Your task to perform on an android device: What's the weather going to be tomorrow? Image 0: 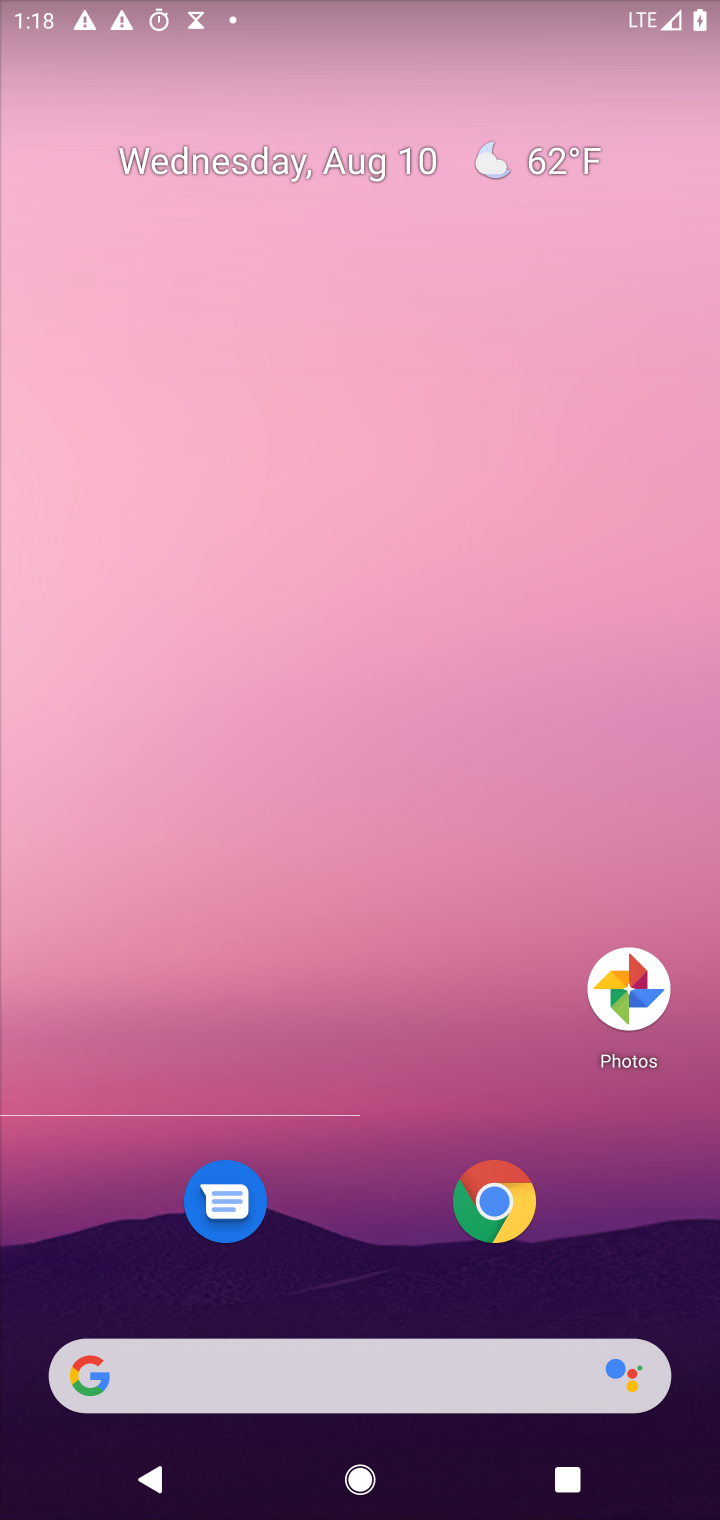
Step 0: press home button
Your task to perform on an android device: What's the weather going to be tomorrow? Image 1: 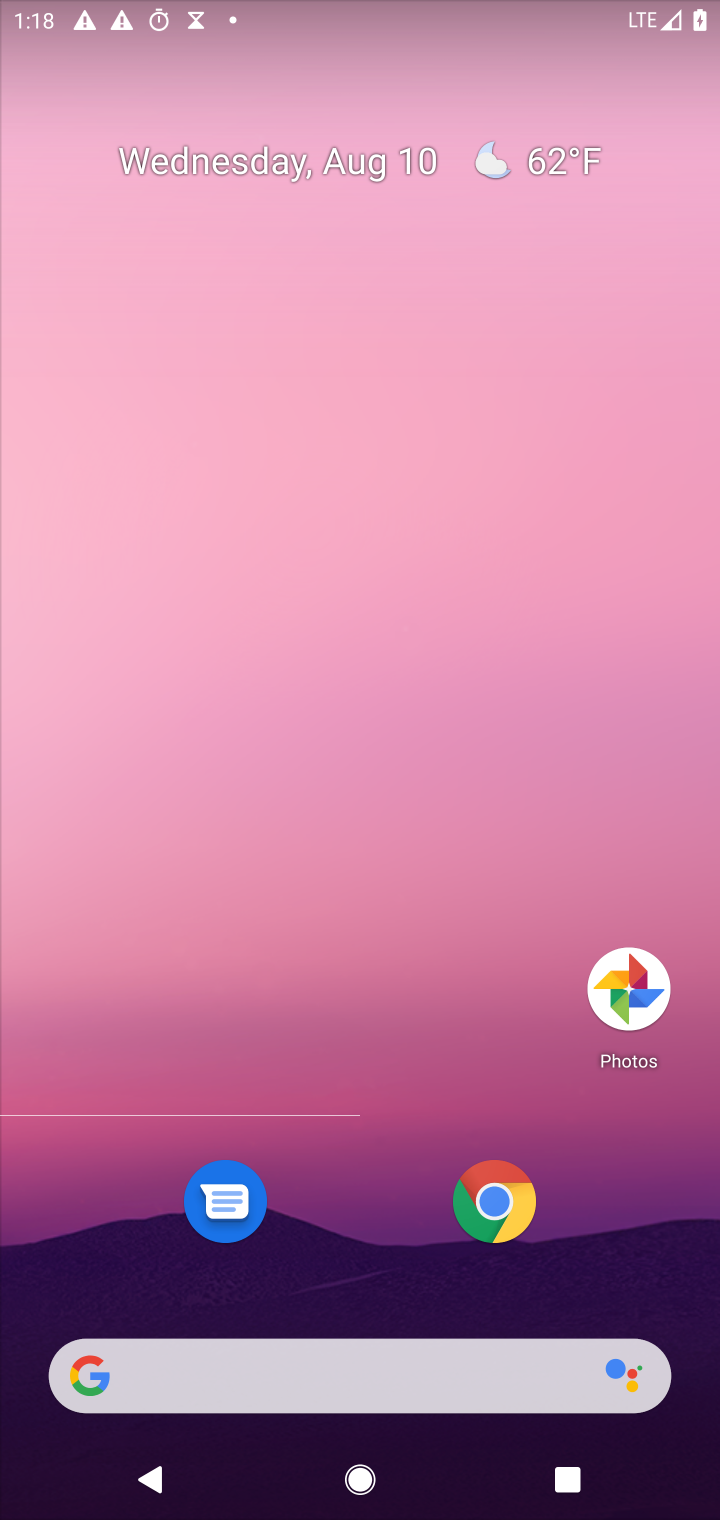
Step 1: drag from (340, 614) to (357, 93)
Your task to perform on an android device: What's the weather going to be tomorrow? Image 2: 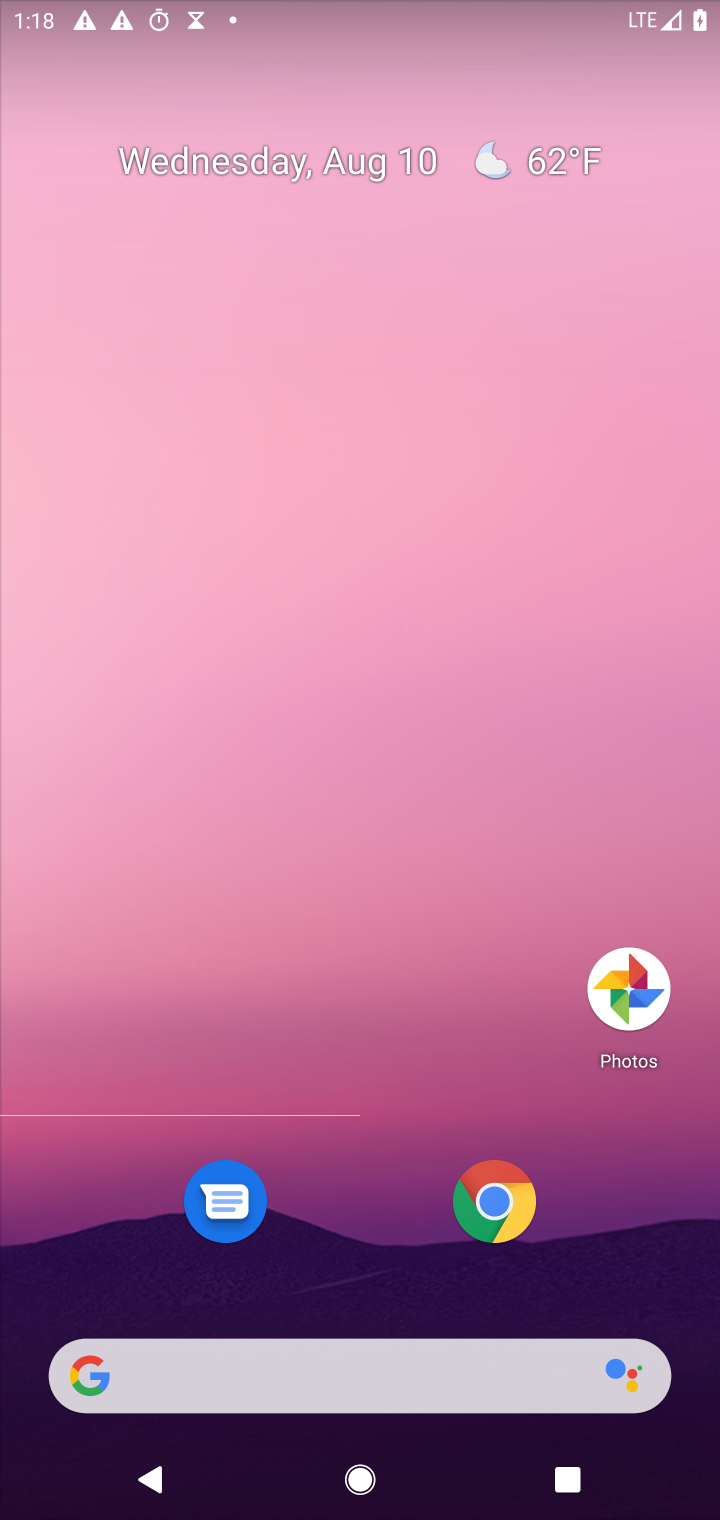
Step 2: drag from (357, 1060) to (351, 59)
Your task to perform on an android device: What's the weather going to be tomorrow? Image 3: 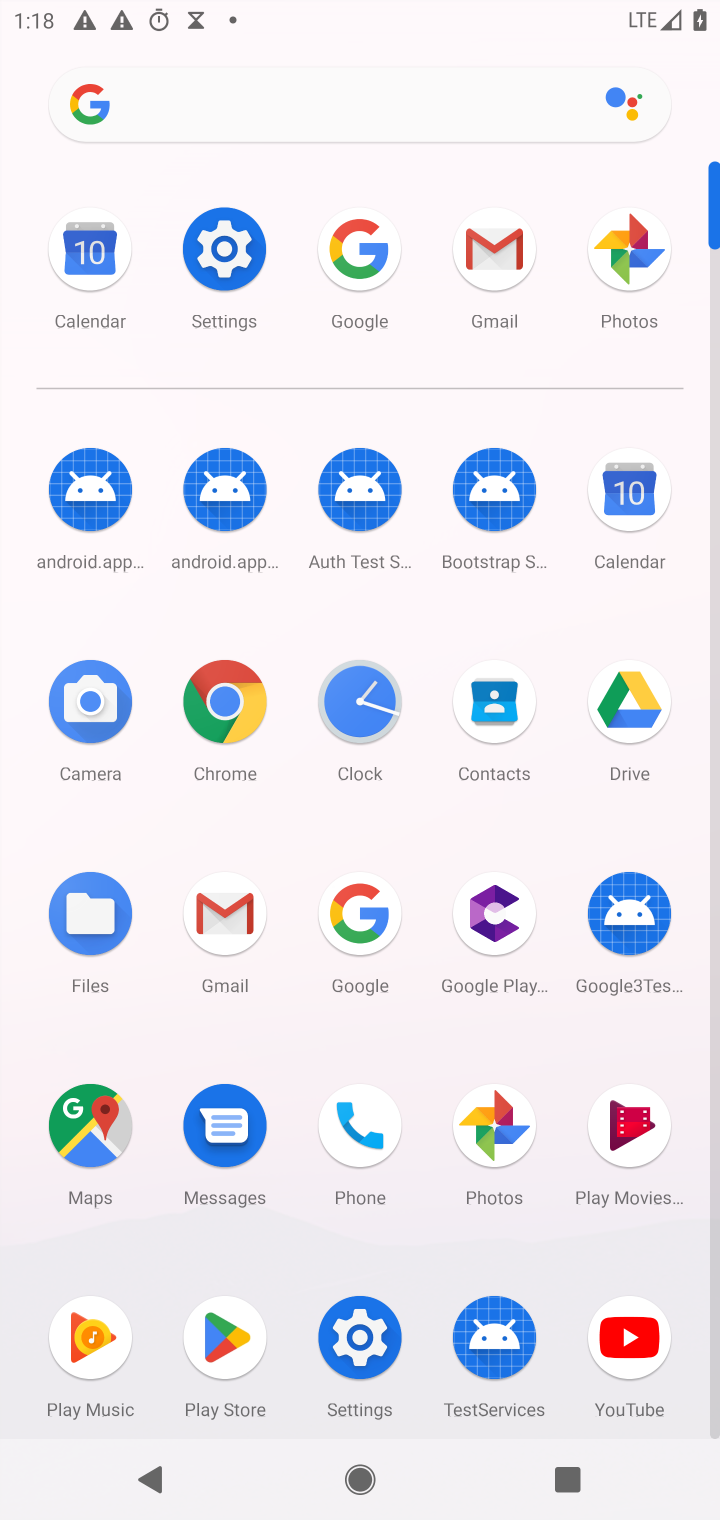
Step 3: click (350, 923)
Your task to perform on an android device: What's the weather going to be tomorrow? Image 4: 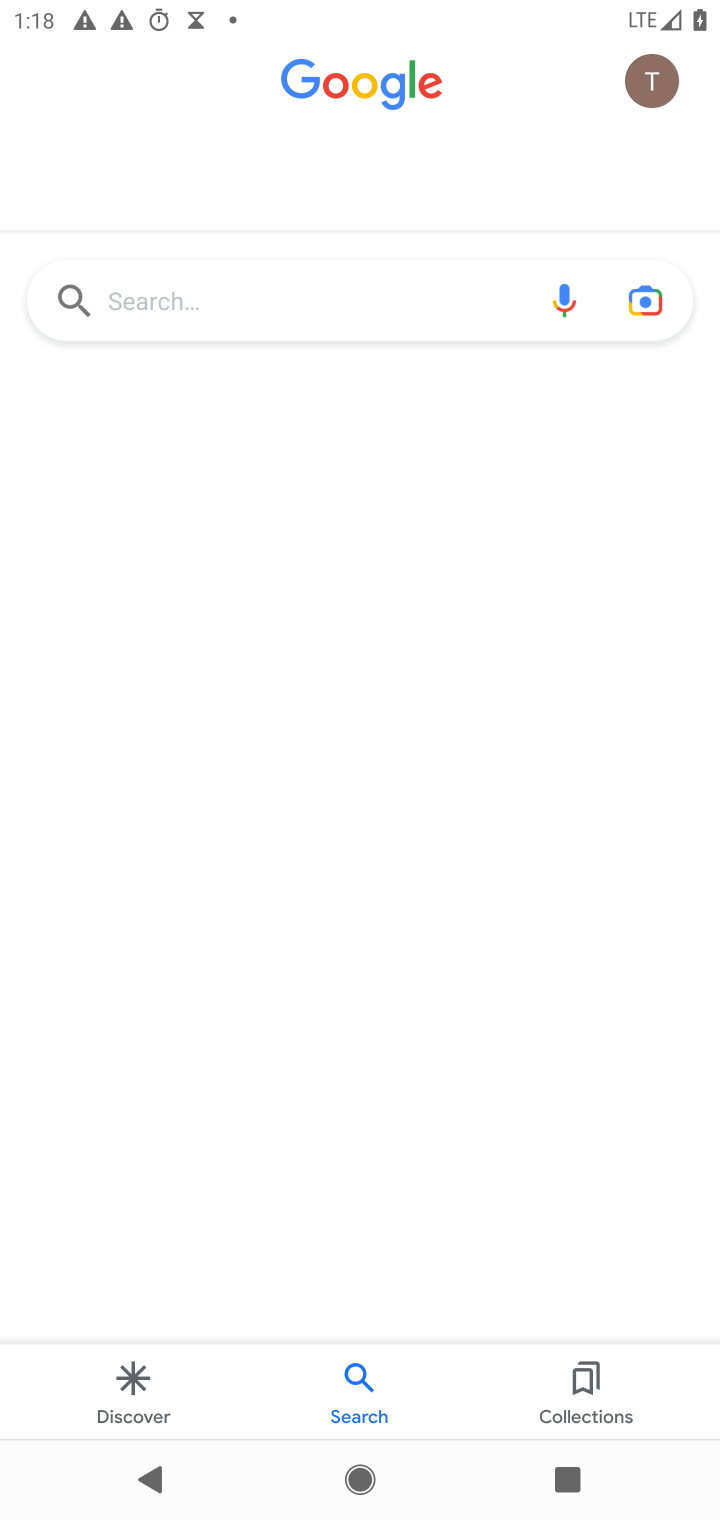
Step 4: type "What's the weather going to be tomorrow?"
Your task to perform on an android device: What's the weather going to be tomorrow? Image 5: 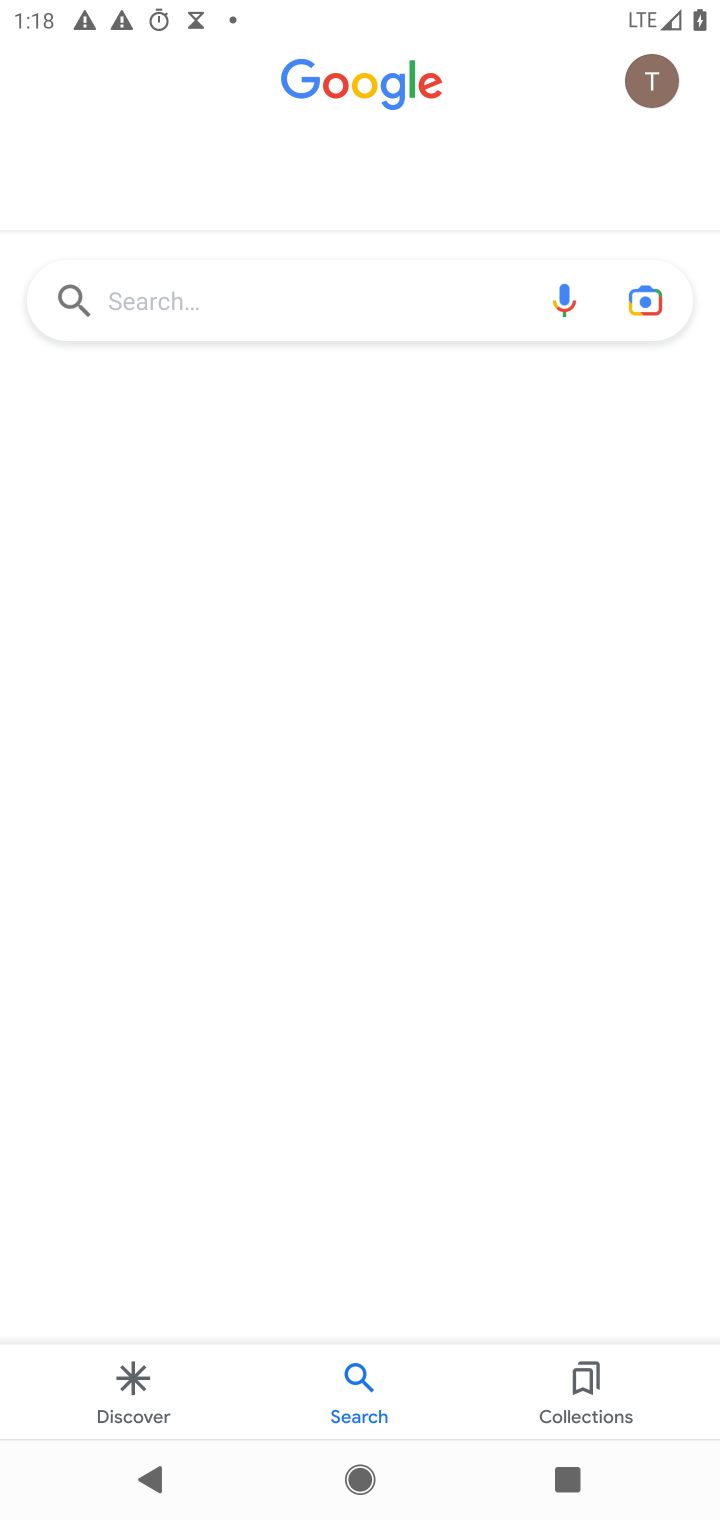
Step 5: click (220, 329)
Your task to perform on an android device: What's the weather going to be tomorrow? Image 6: 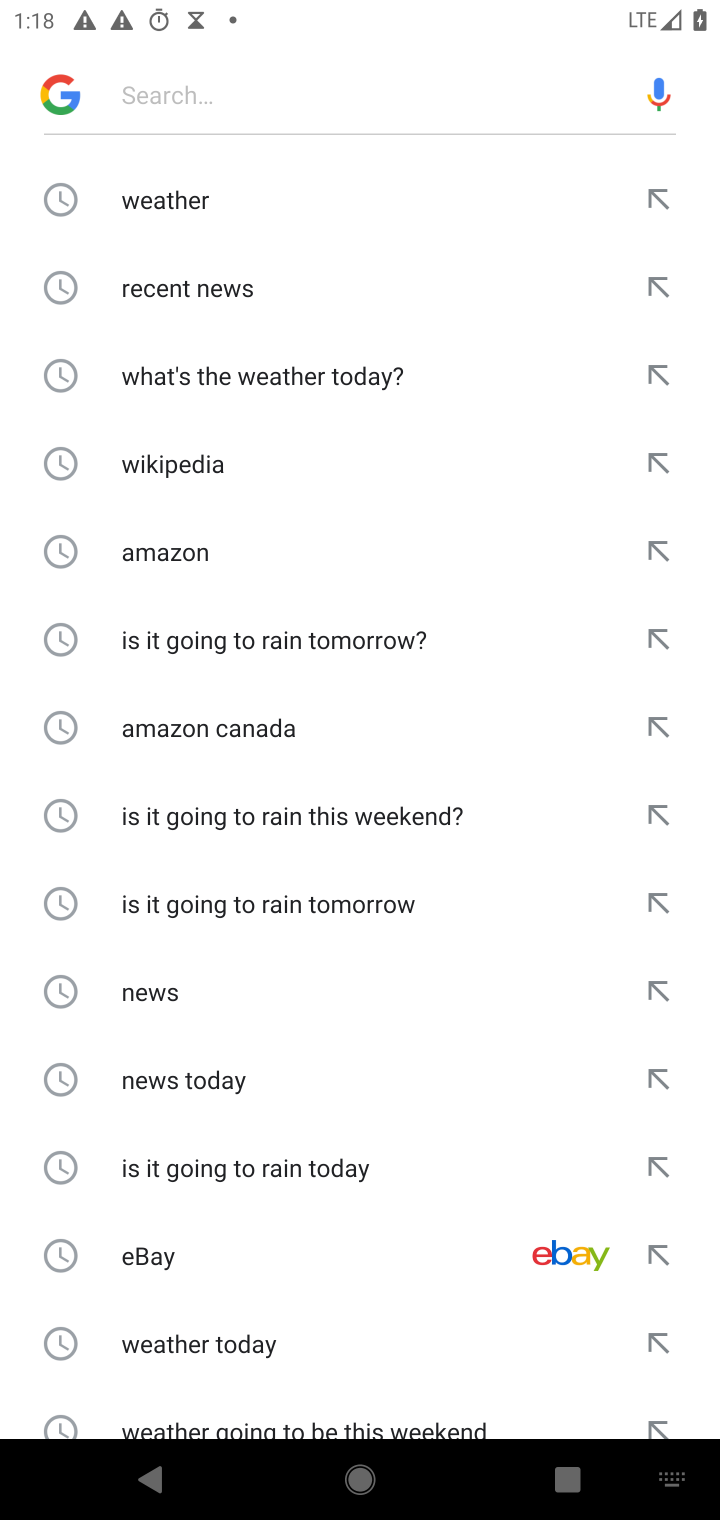
Step 6: click (320, 99)
Your task to perform on an android device: What's the weather going to be tomorrow? Image 7: 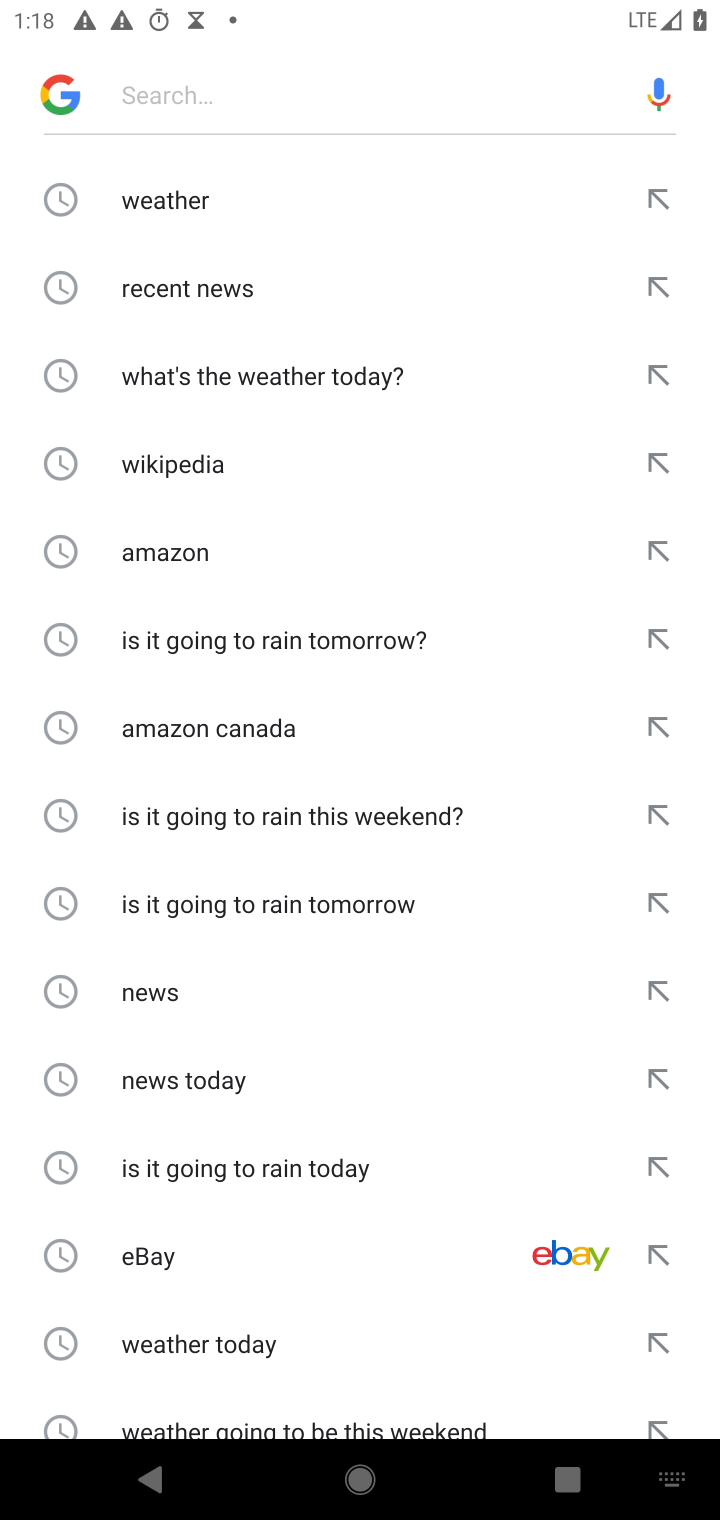
Step 7: type "What's the weather going to be tomorrow?"
Your task to perform on an android device: What's the weather going to be tomorrow? Image 8: 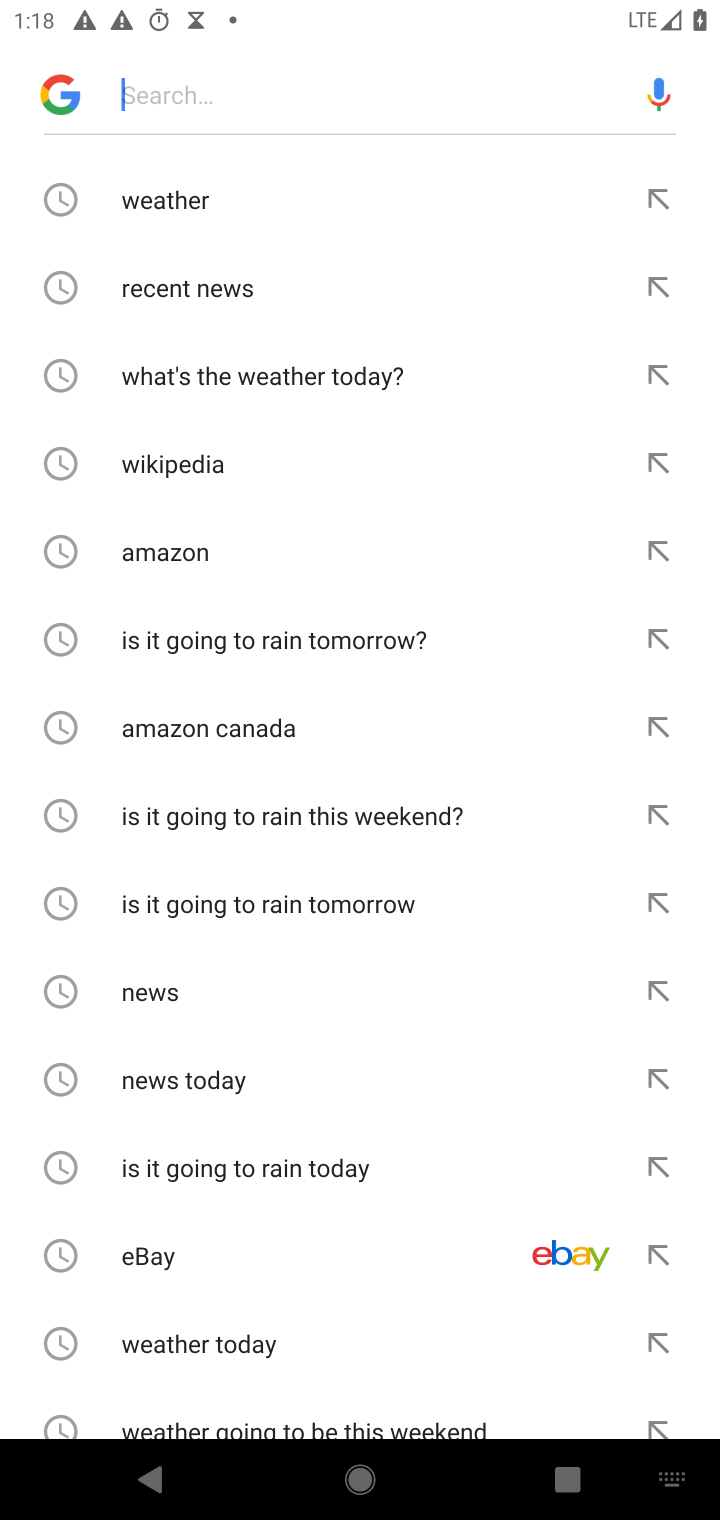
Step 8: click (222, 95)
Your task to perform on an android device: What's the weather going to be tomorrow? Image 9: 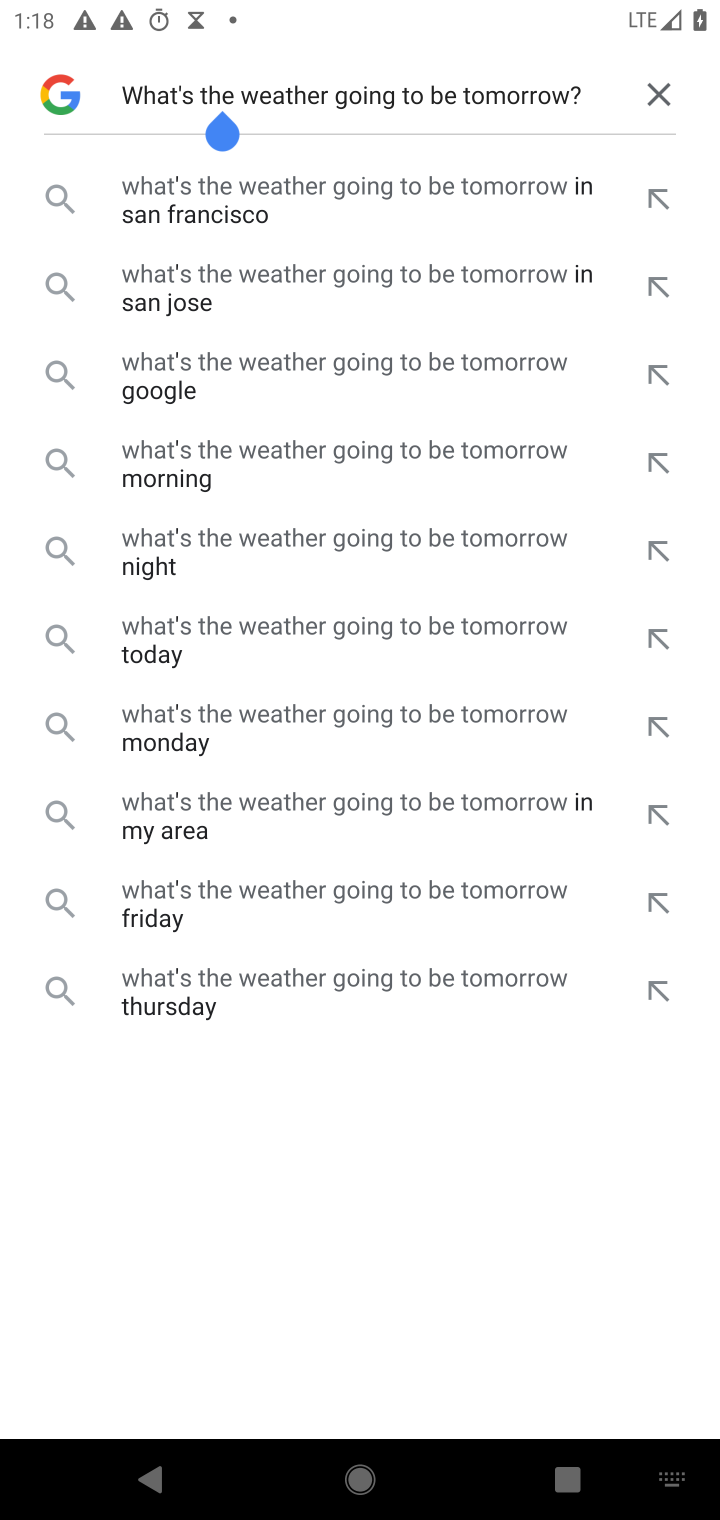
Step 9: press enter
Your task to perform on an android device: What's the weather going to be tomorrow? Image 10: 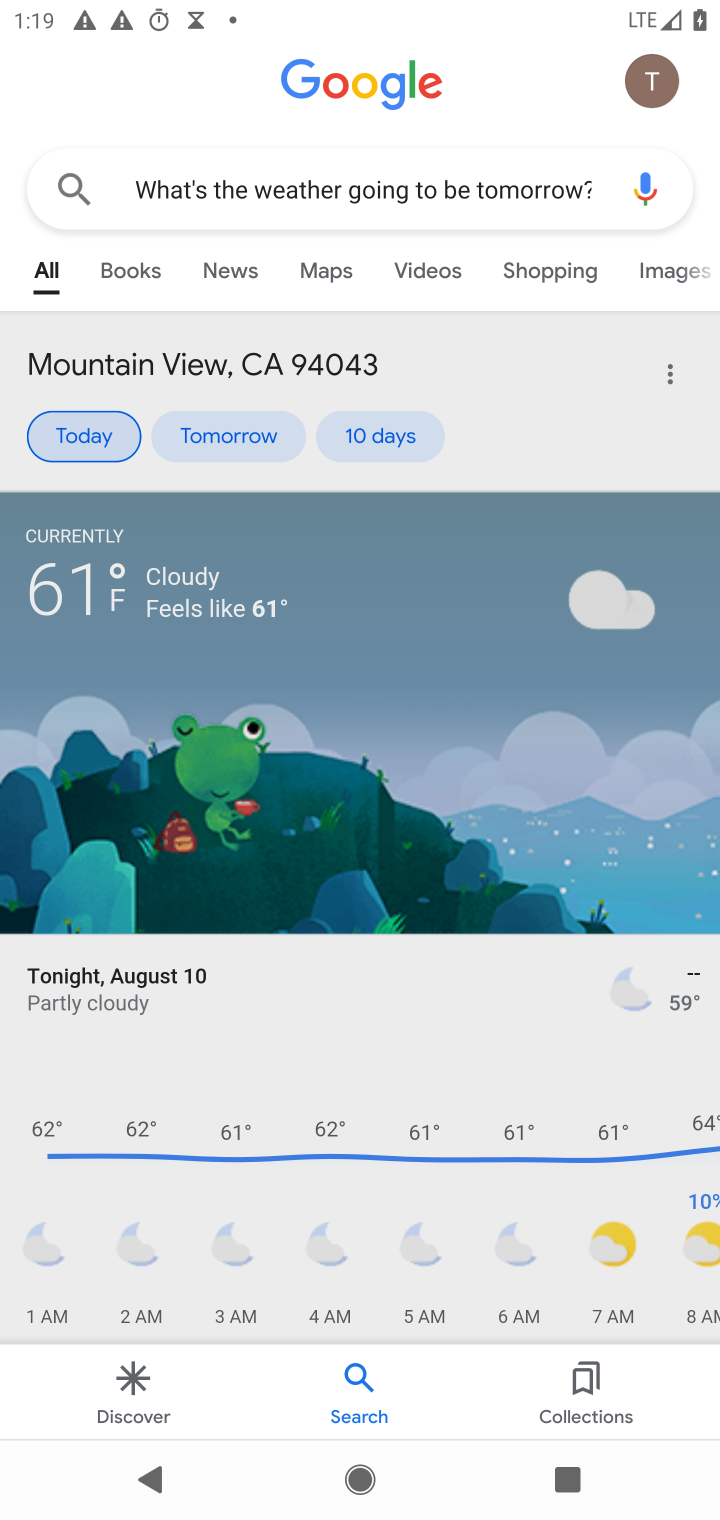
Step 10: task complete